Your task to perform on an android device: change the clock display to analog Image 0: 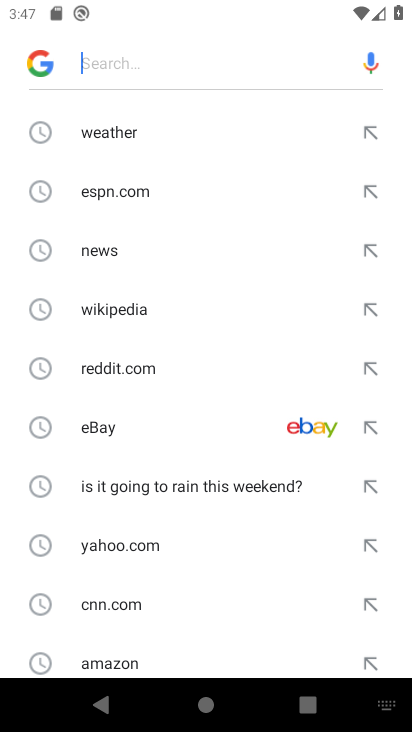
Step 0: press home button
Your task to perform on an android device: change the clock display to analog Image 1: 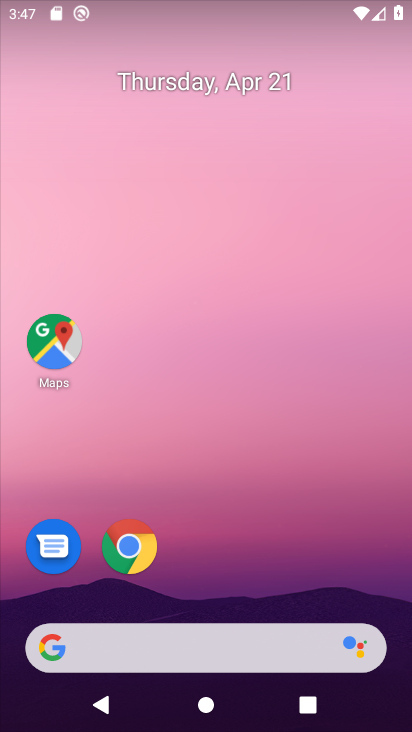
Step 1: drag from (305, 506) to (298, 86)
Your task to perform on an android device: change the clock display to analog Image 2: 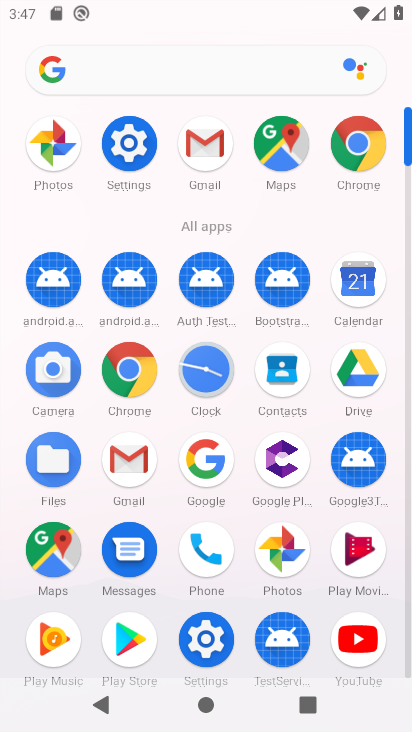
Step 2: click (215, 371)
Your task to perform on an android device: change the clock display to analog Image 3: 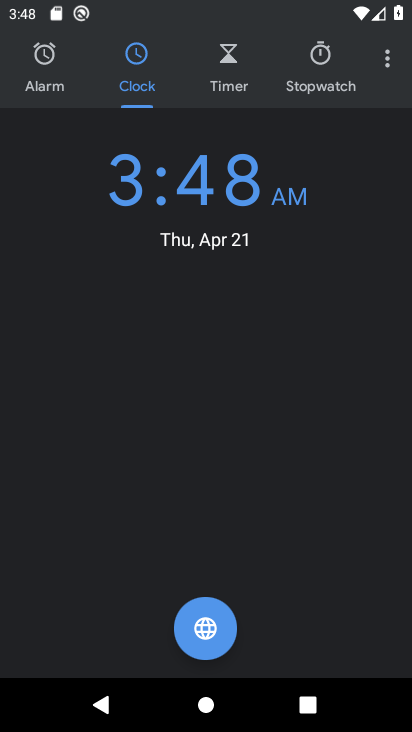
Step 3: click (396, 57)
Your task to perform on an android device: change the clock display to analog Image 4: 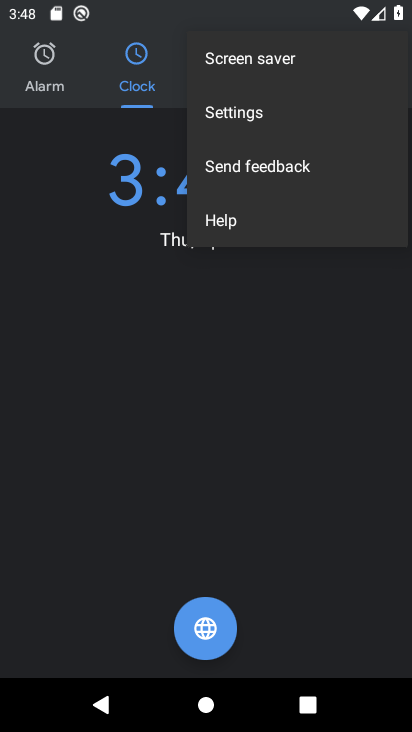
Step 4: click (322, 100)
Your task to perform on an android device: change the clock display to analog Image 5: 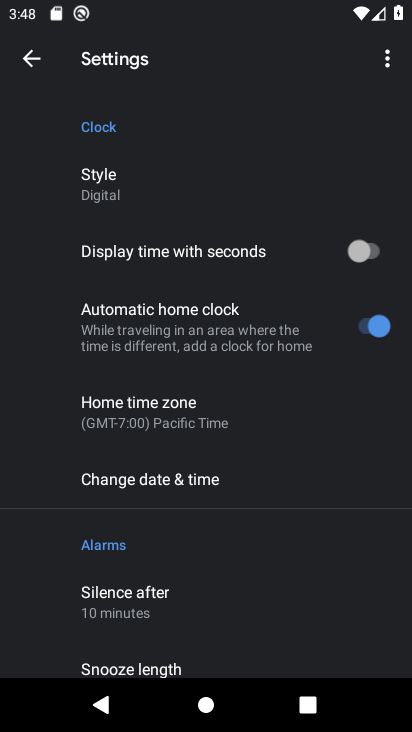
Step 5: click (232, 180)
Your task to perform on an android device: change the clock display to analog Image 6: 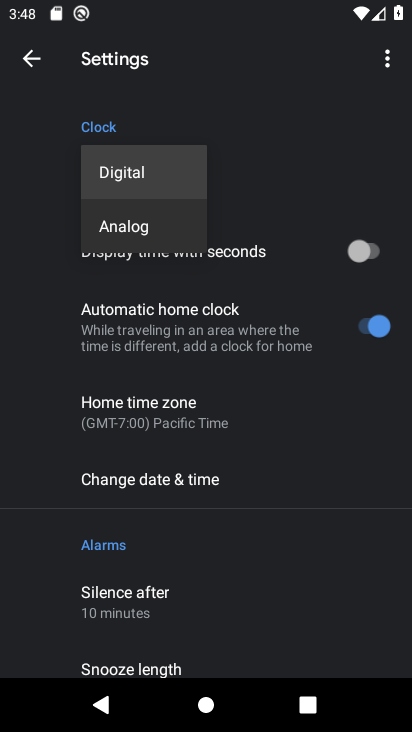
Step 6: click (107, 237)
Your task to perform on an android device: change the clock display to analog Image 7: 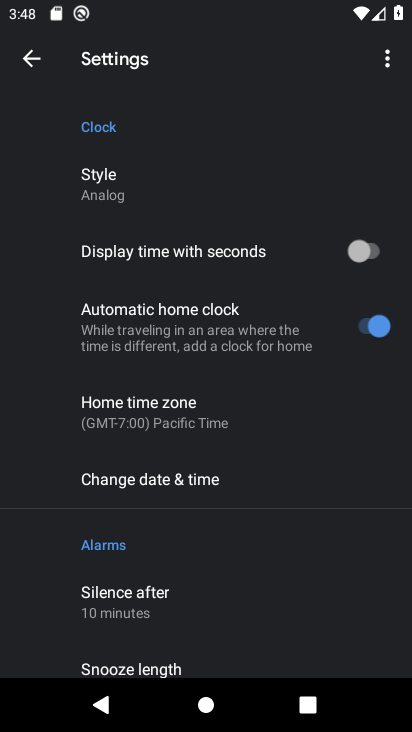
Step 7: task complete